Your task to perform on an android device: Go to Maps Image 0: 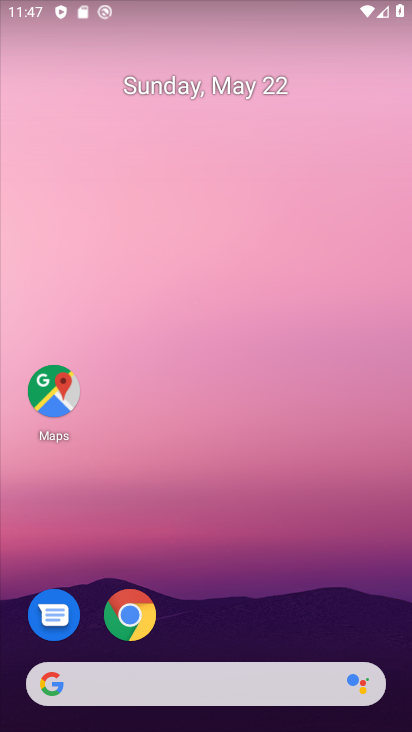
Step 0: click (46, 396)
Your task to perform on an android device: Go to Maps Image 1: 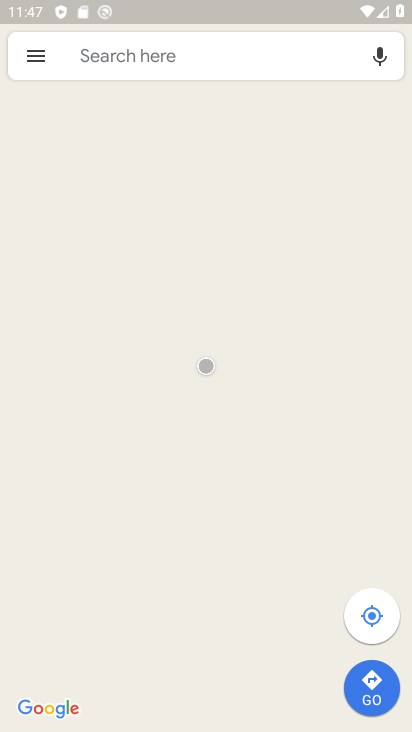
Step 1: task complete